Your task to perform on an android device: change the clock display to digital Image 0: 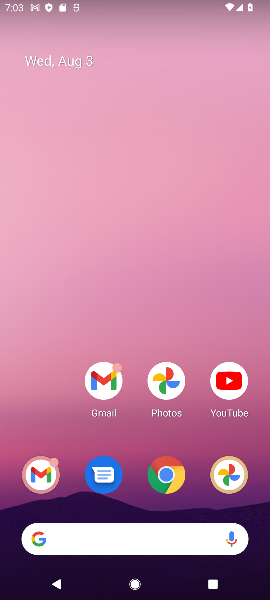
Step 0: drag from (151, 446) to (147, 194)
Your task to perform on an android device: change the clock display to digital Image 1: 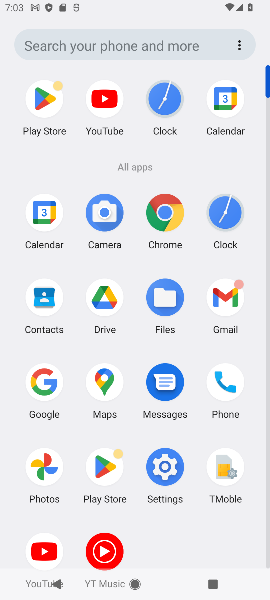
Step 1: click (227, 222)
Your task to perform on an android device: change the clock display to digital Image 2: 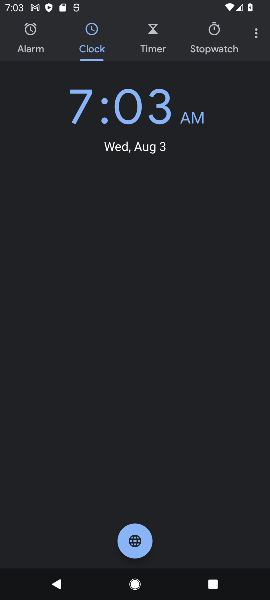
Step 2: click (258, 39)
Your task to perform on an android device: change the clock display to digital Image 3: 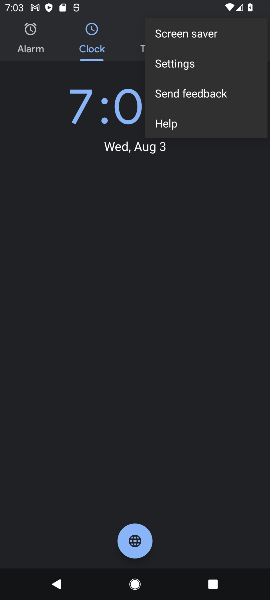
Step 3: click (199, 70)
Your task to perform on an android device: change the clock display to digital Image 4: 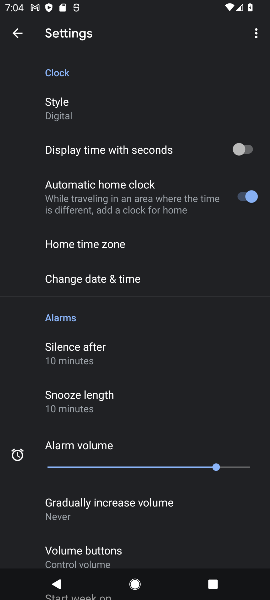
Step 4: click (144, 109)
Your task to perform on an android device: change the clock display to digital Image 5: 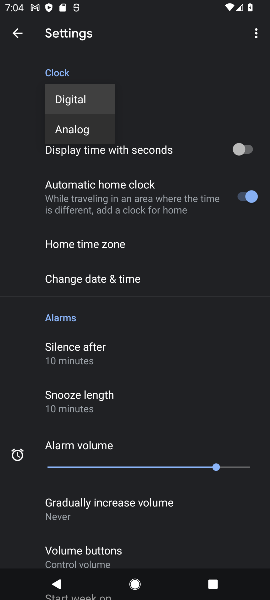
Step 5: task complete